Your task to perform on an android device: turn on javascript in the chrome app Image 0: 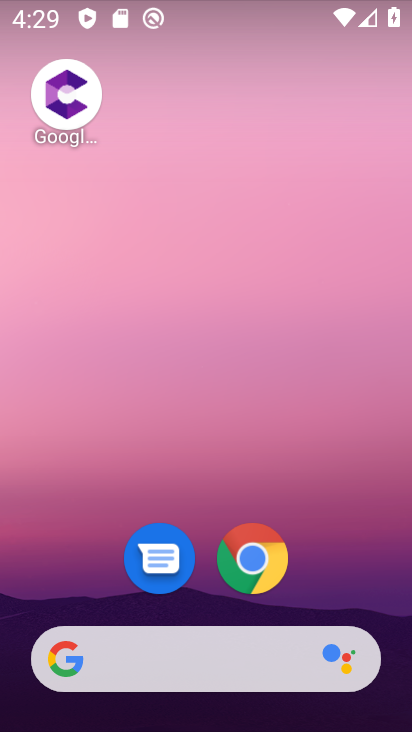
Step 0: click (269, 565)
Your task to perform on an android device: turn on javascript in the chrome app Image 1: 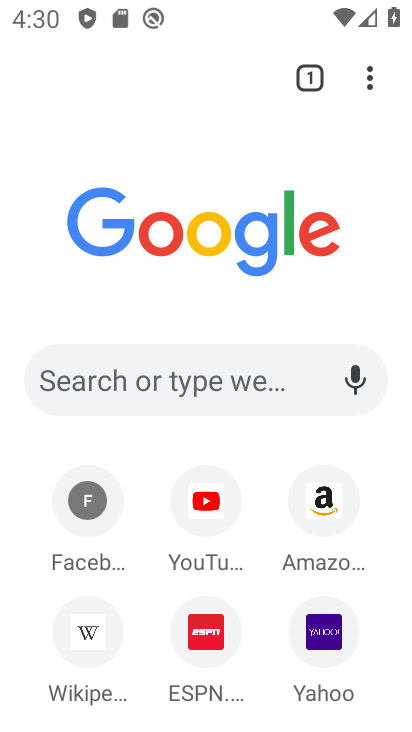
Step 1: click (368, 86)
Your task to perform on an android device: turn on javascript in the chrome app Image 2: 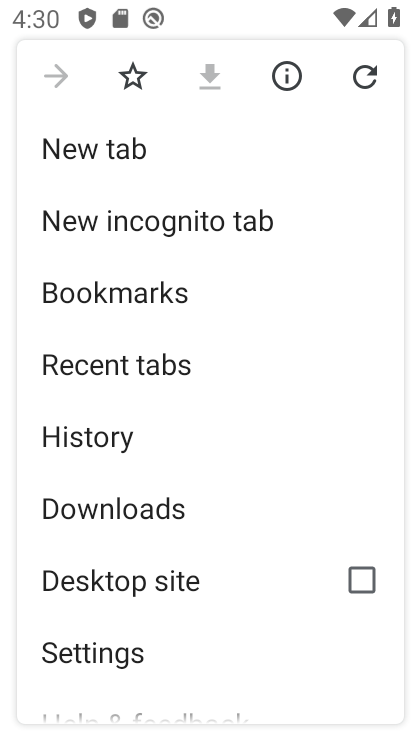
Step 2: click (152, 662)
Your task to perform on an android device: turn on javascript in the chrome app Image 3: 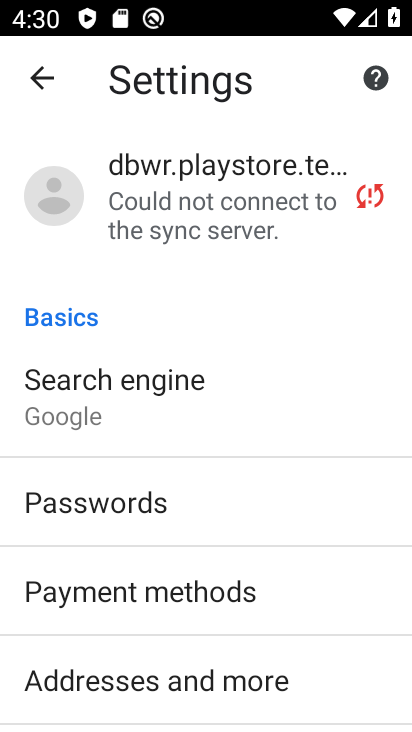
Step 3: drag from (199, 709) to (154, 265)
Your task to perform on an android device: turn on javascript in the chrome app Image 4: 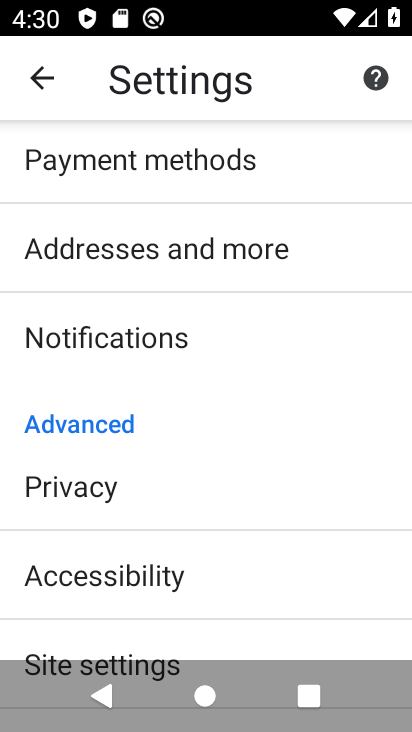
Step 4: drag from (178, 581) to (172, 155)
Your task to perform on an android device: turn on javascript in the chrome app Image 5: 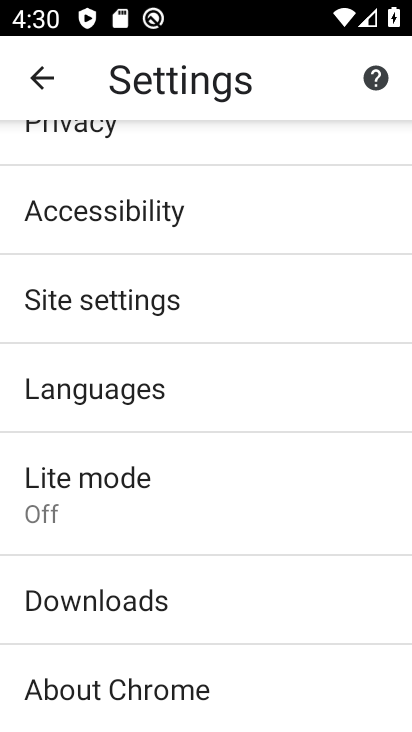
Step 5: click (166, 311)
Your task to perform on an android device: turn on javascript in the chrome app Image 6: 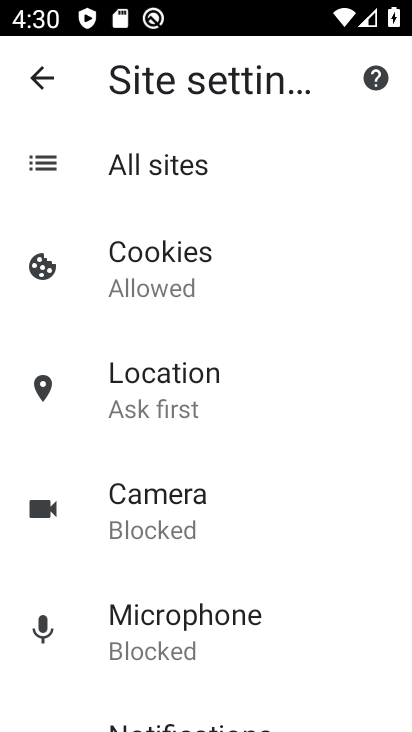
Step 6: drag from (218, 697) to (165, 269)
Your task to perform on an android device: turn on javascript in the chrome app Image 7: 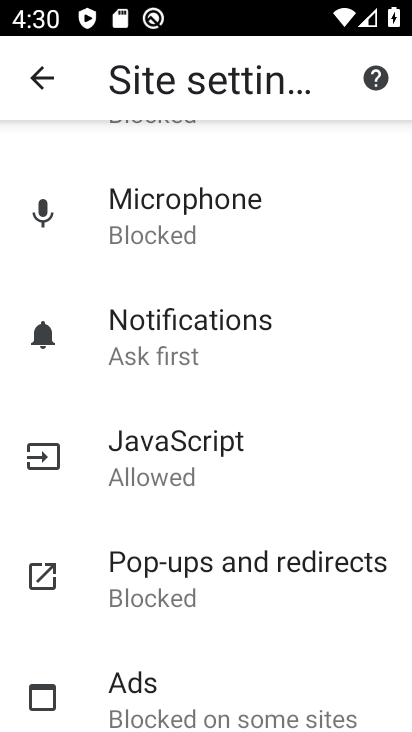
Step 7: click (205, 466)
Your task to perform on an android device: turn on javascript in the chrome app Image 8: 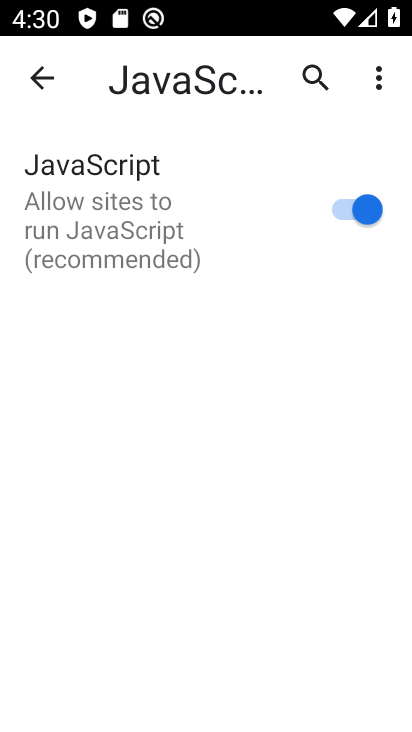
Step 8: task complete